Your task to perform on an android device: Add "razer kraken" to the cart on amazon.com Image 0: 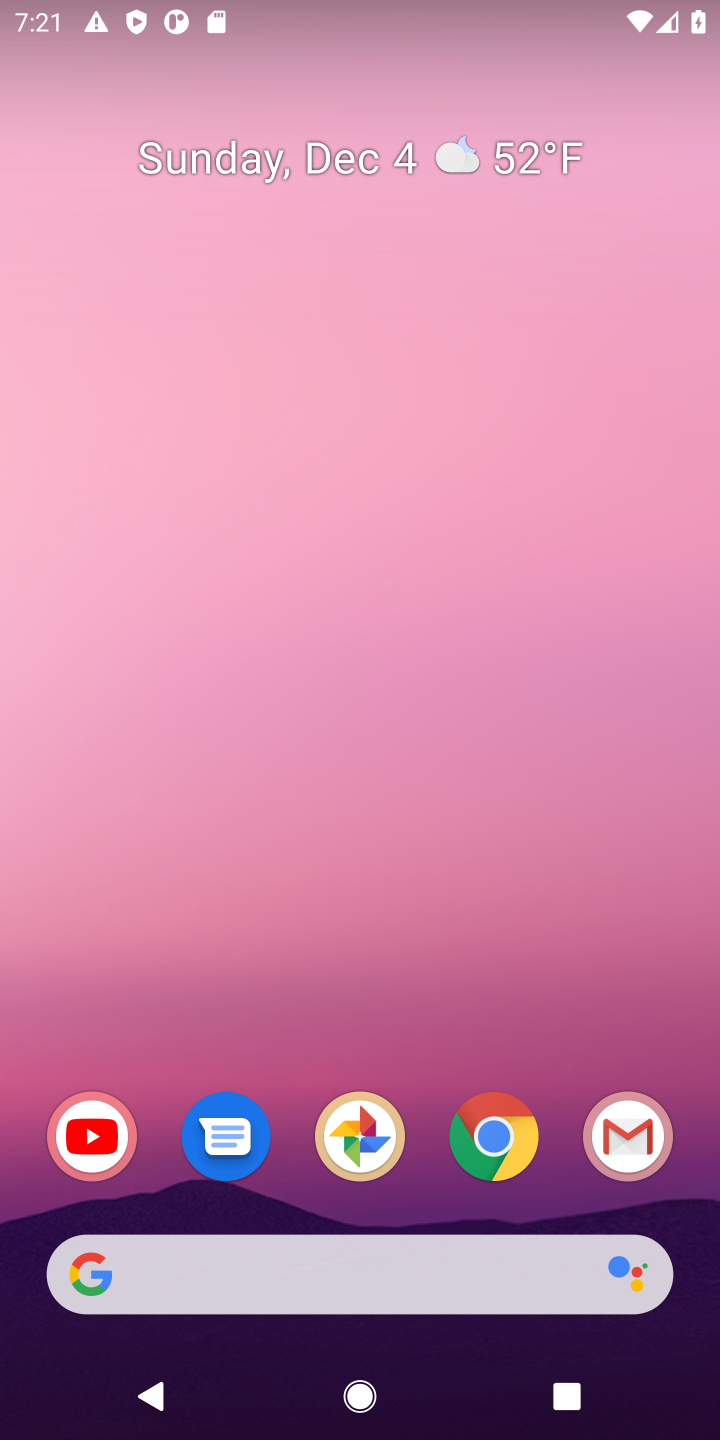
Step 0: click (497, 1148)
Your task to perform on an android device: Add "razer kraken" to the cart on amazon.com Image 1: 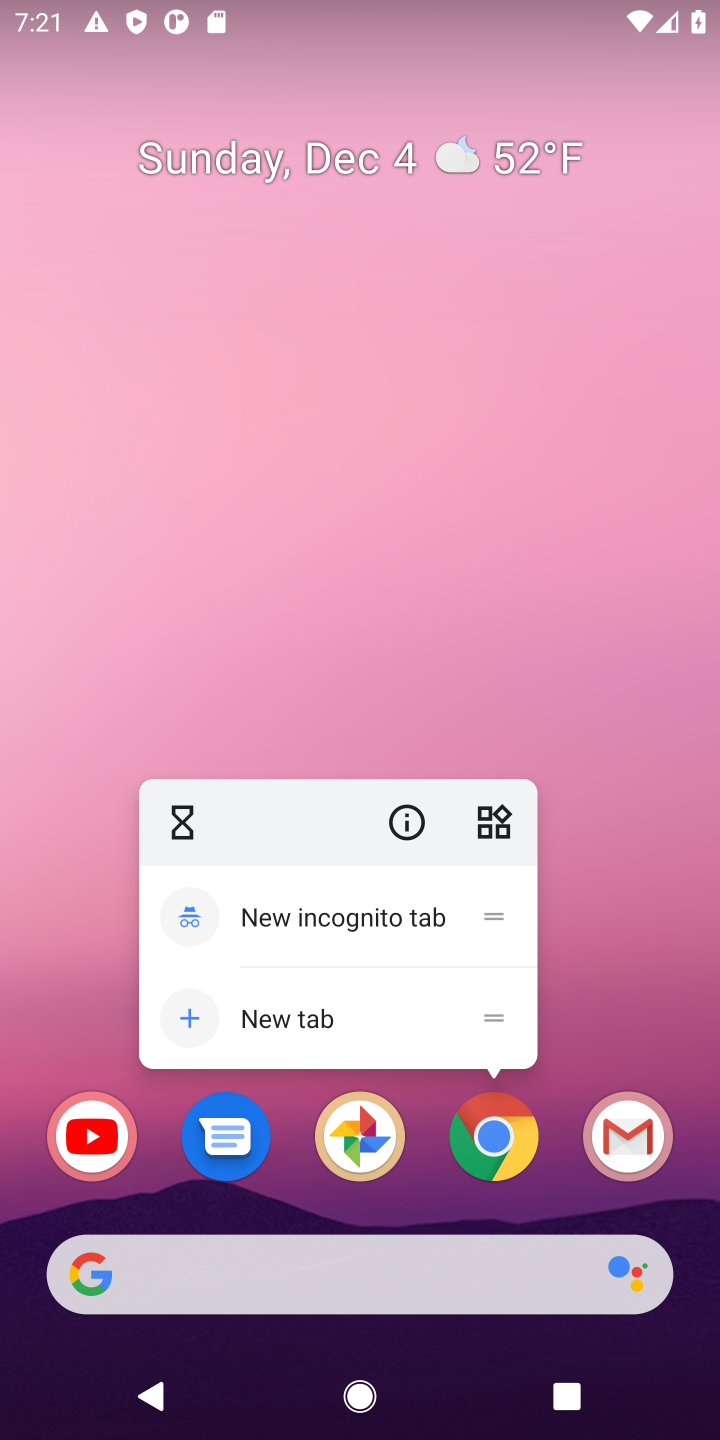
Step 1: click (497, 1148)
Your task to perform on an android device: Add "razer kraken" to the cart on amazon.com Image 2: 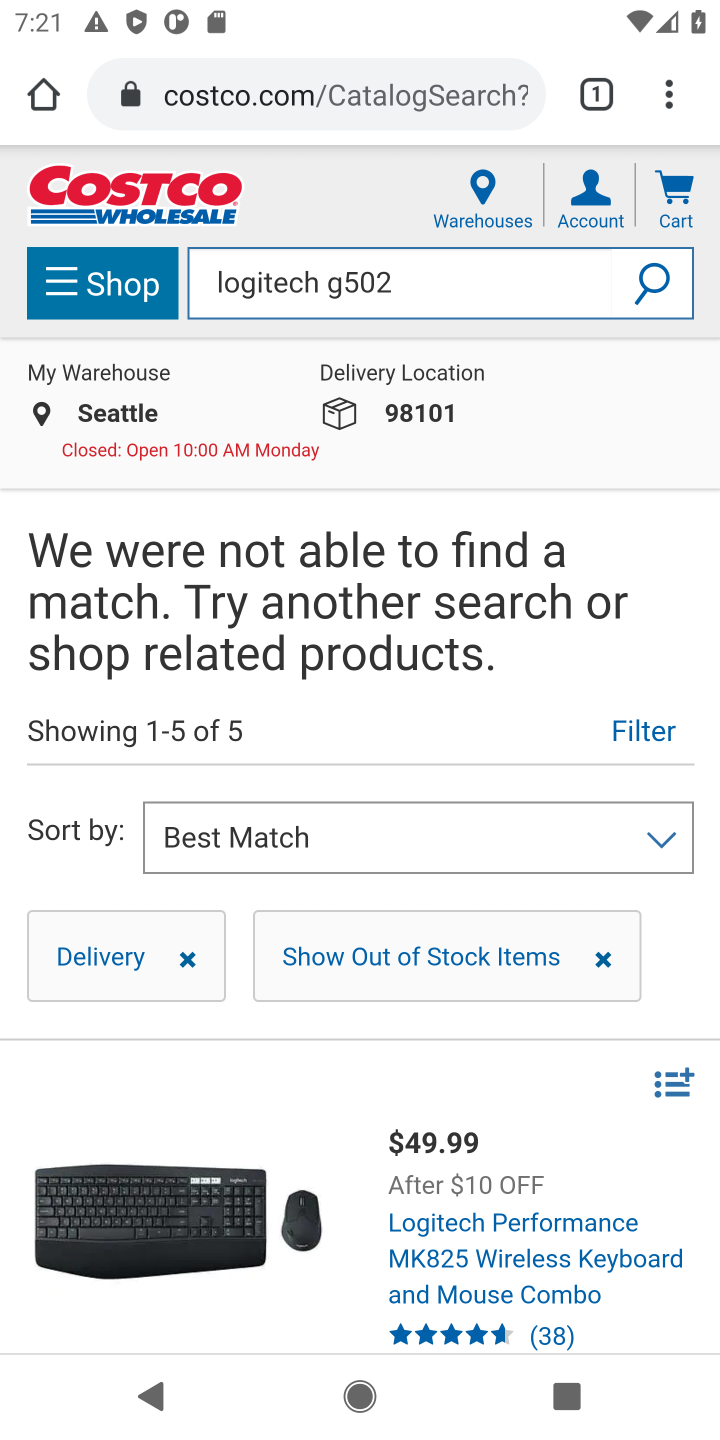
Step 2: click (273, 105)
Your task to perform on an android device: Add "razer kraken" to the cart on amazon.com Image 3: 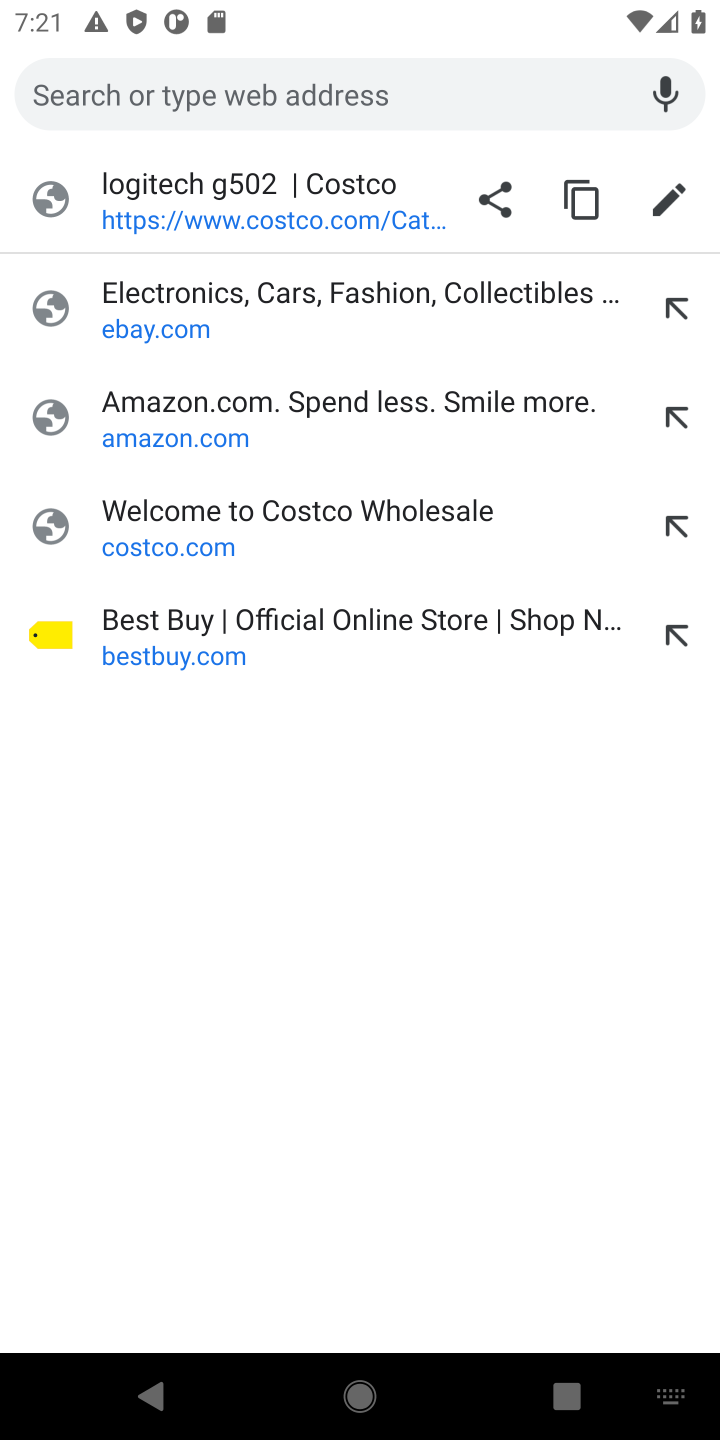
Step 3: click (138, 411)
Your task to perform on an android device: Add "razer kraken" to the cart on amazon.com Image 4: 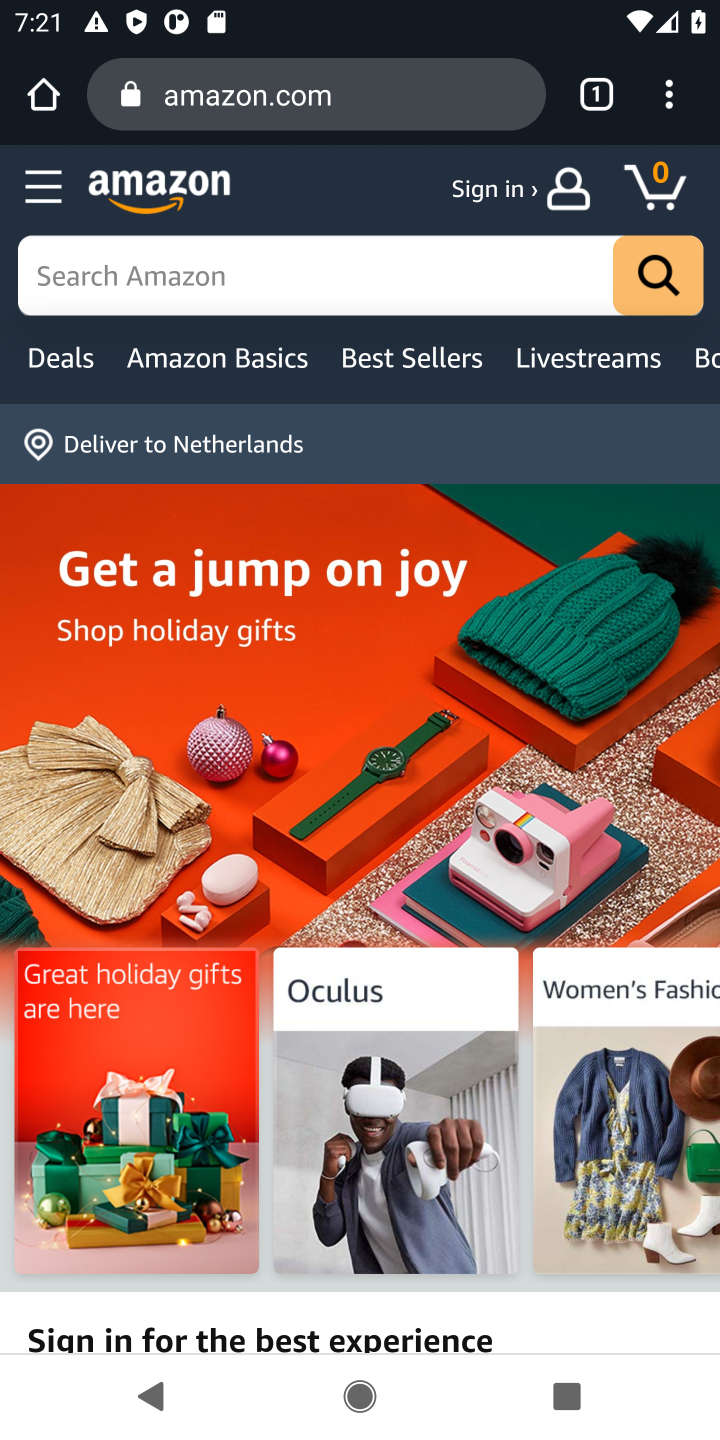
Step 4: click (129, 285)
Your task to perform on an android device: Add "razer kraken" to the cart on amazon.com Image 5: 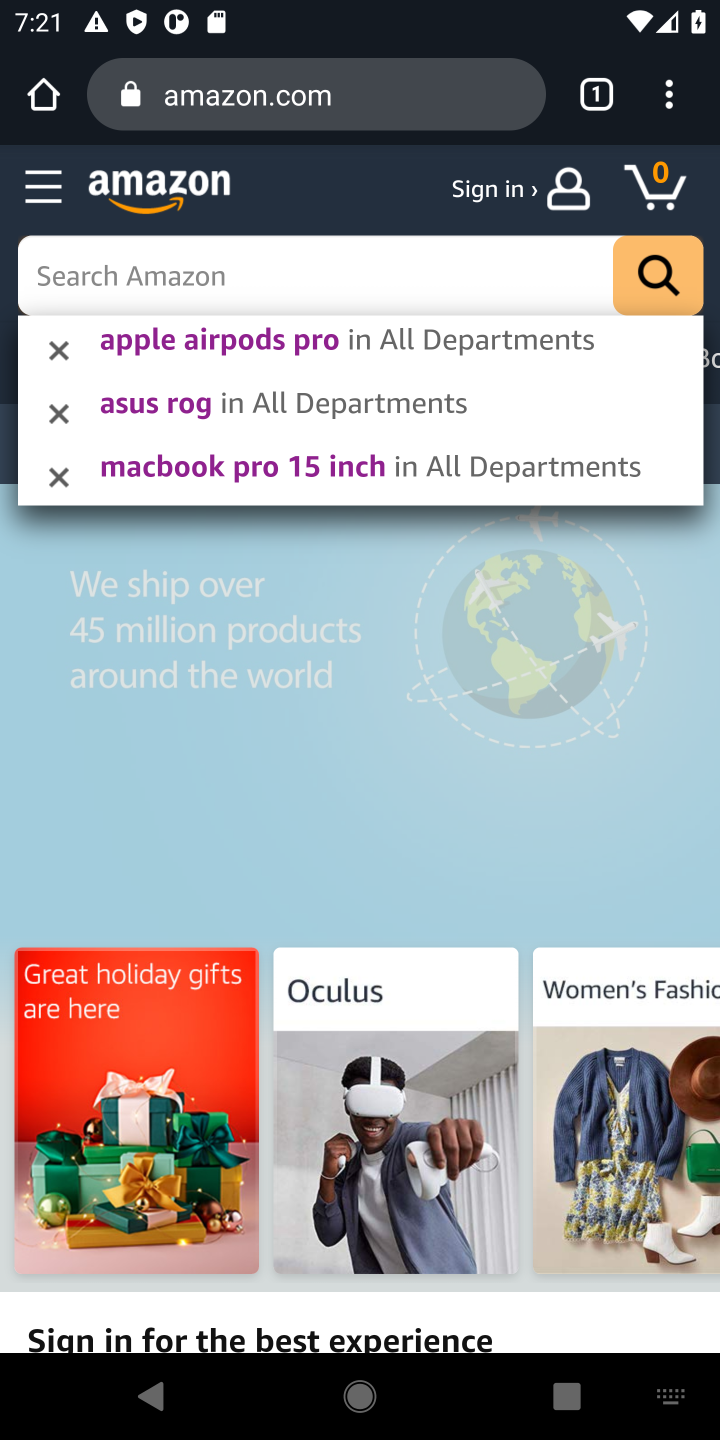
Step 5: type "razer kraken"
Your task to perform on an android device: Add "razer kraken" to the cart on amazon.com Image 6: 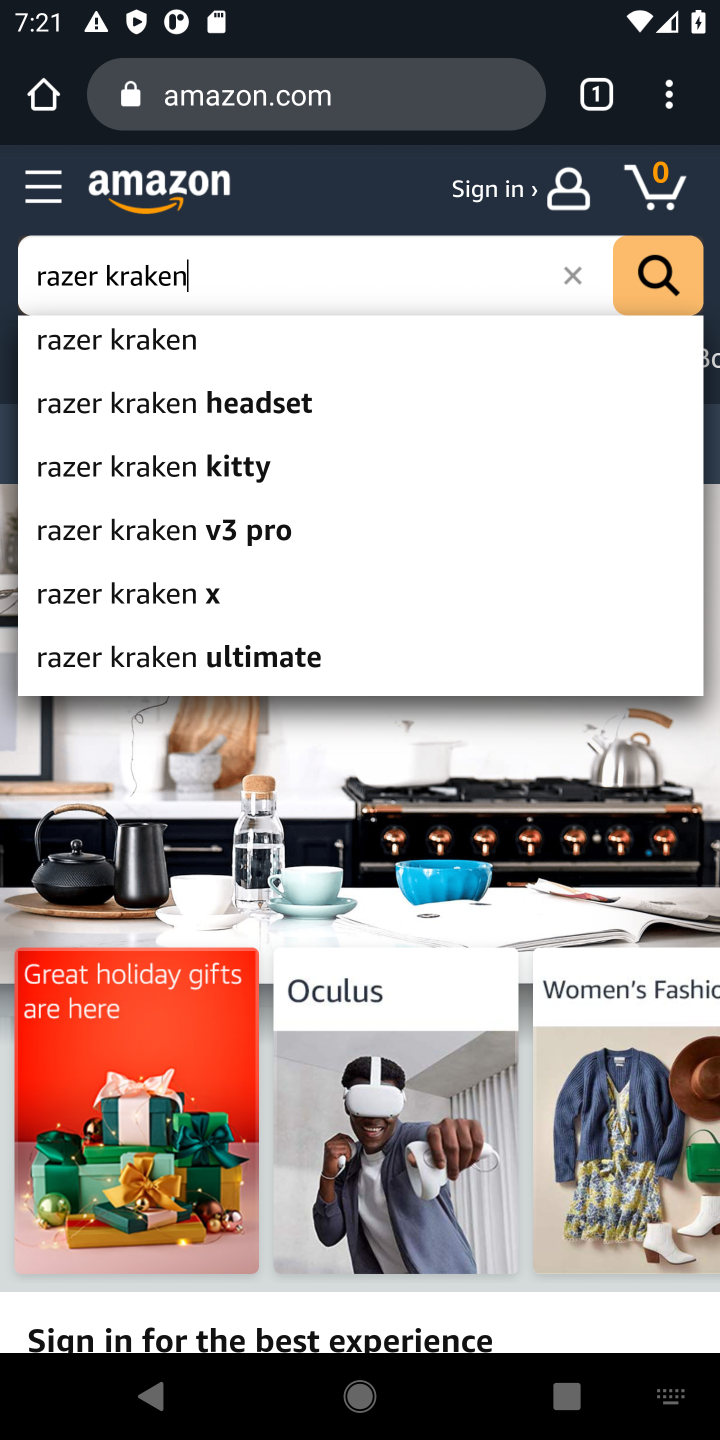
Step 6: click (157, 344)
Your task to perform on an android device: Add "razer kraken" to the cart on amazon.com Image 7: 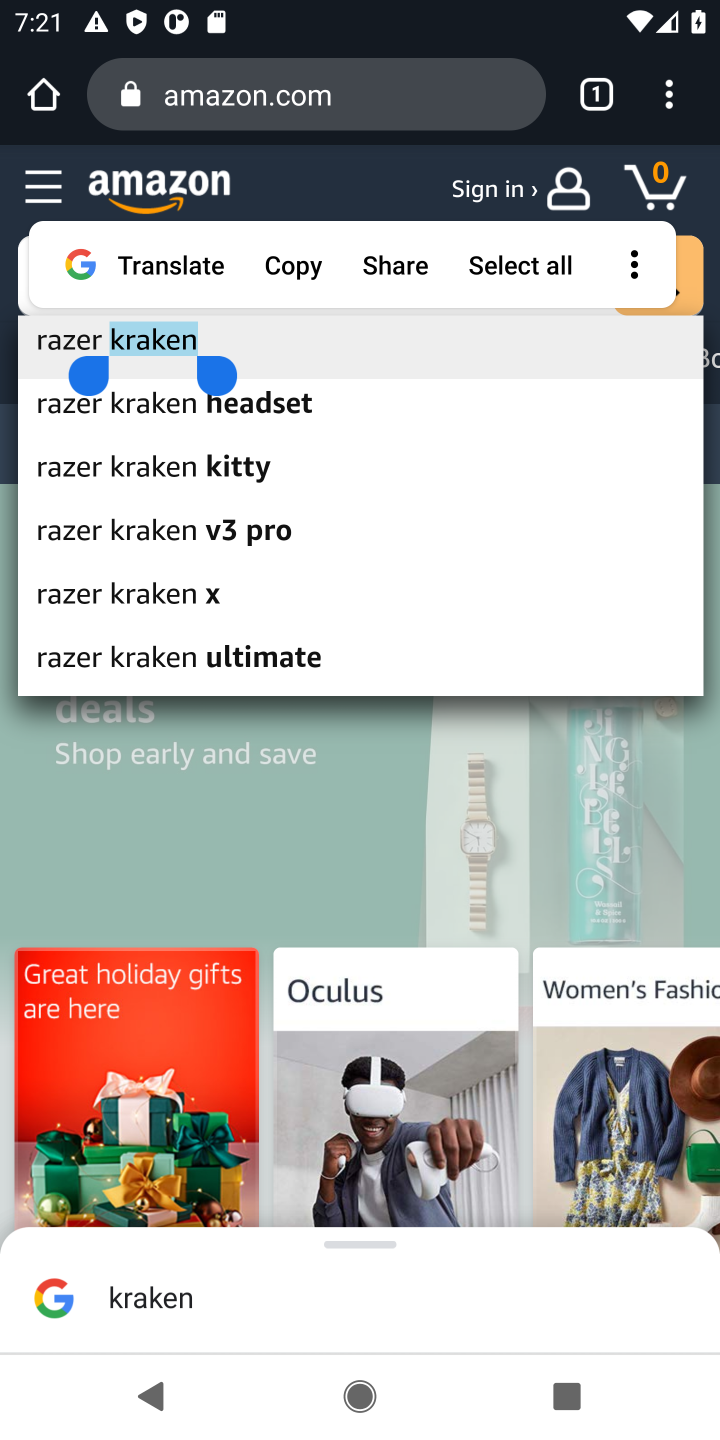
Step 7: click (73, 331)
Your task to perform on an android device: Add "razer kraken" to the cart on amazon.com Image 8: 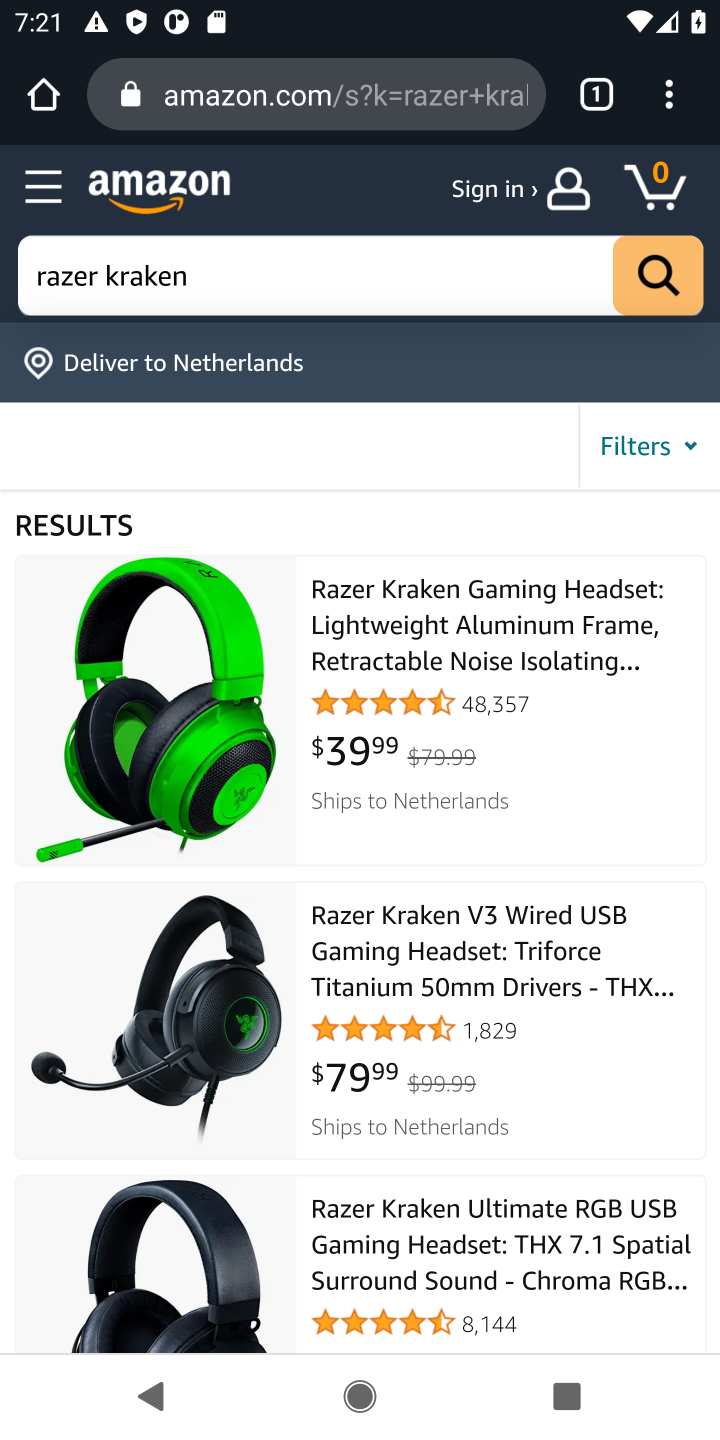
Step 8: click (463, 651)
Your task to perform on an android device: Add "razer kraken" to the cart on amazon.com Image 9: 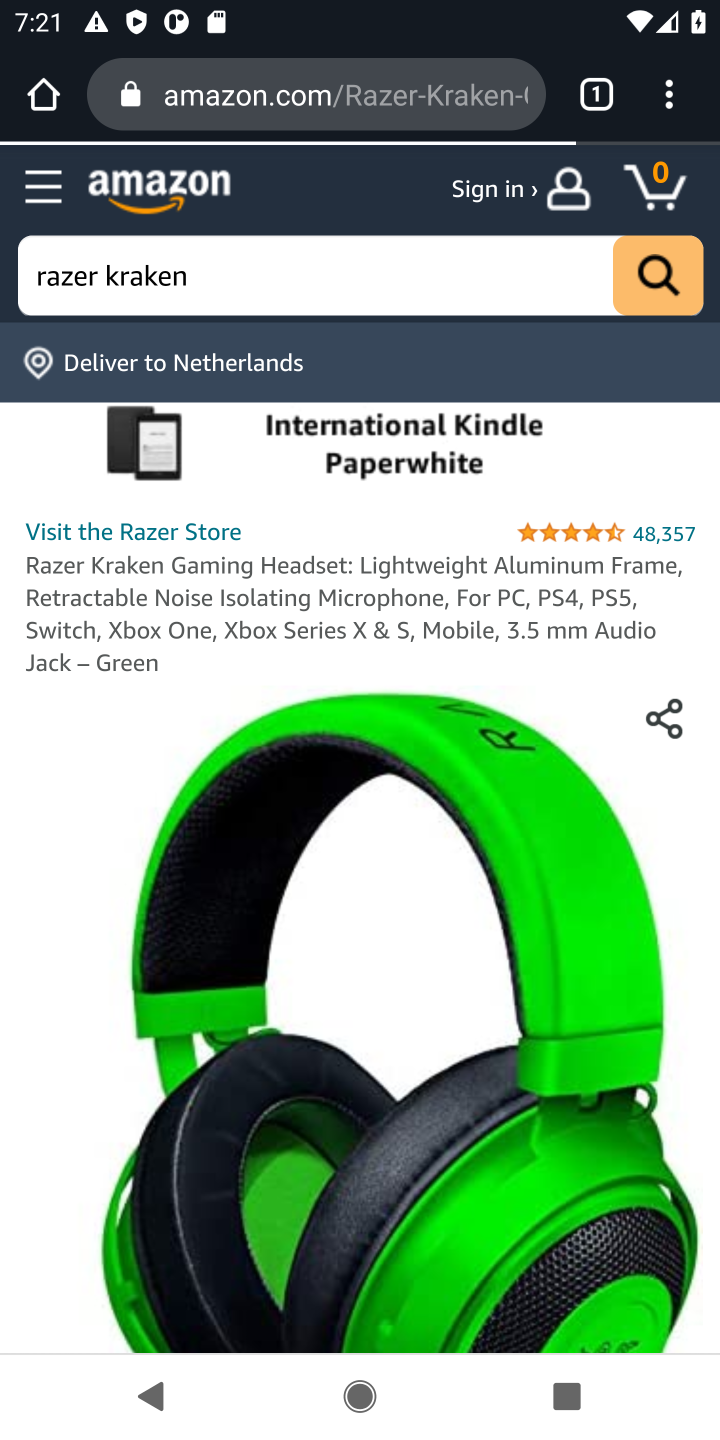
Step 9: drag from (434, 1025) to (413, 521)
Your task to perform on an android device: Add "razer kraken" to the cart on amazon.com Image 10: 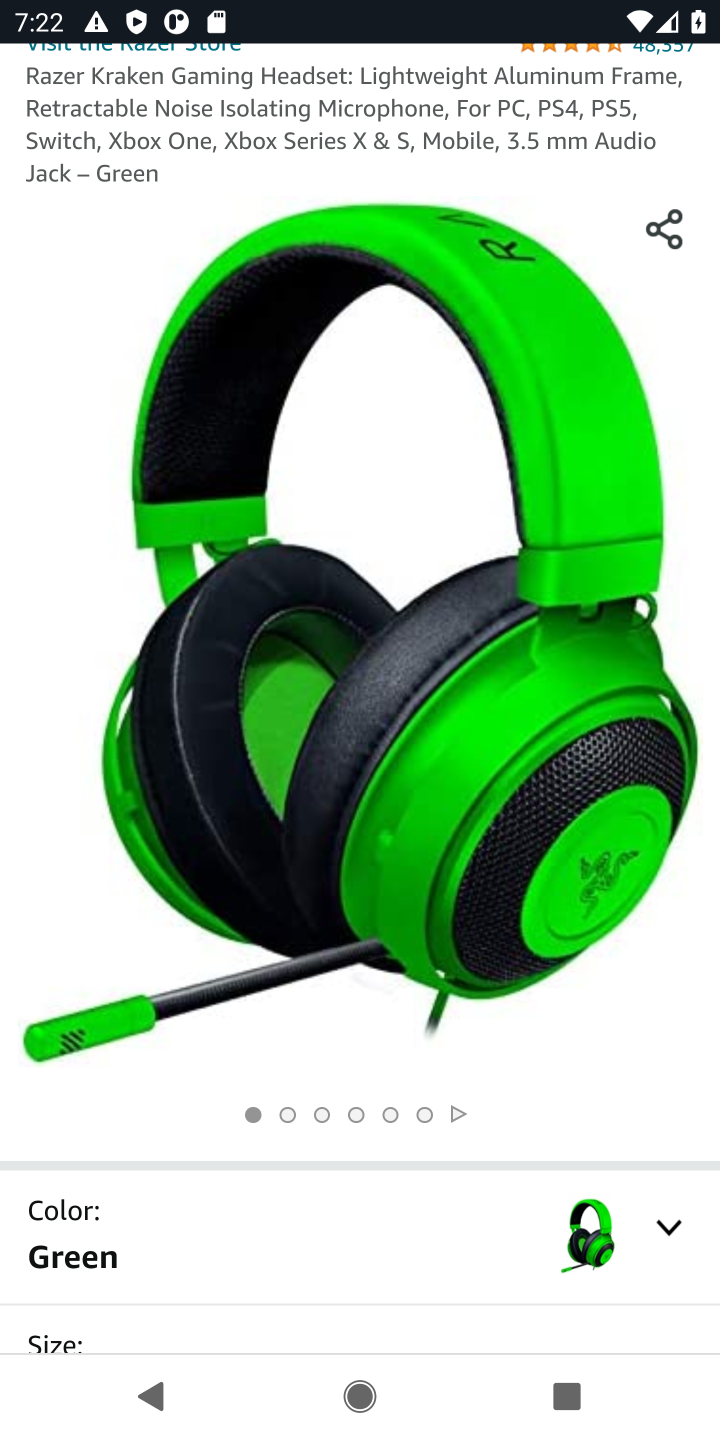
Step 10: drag from (517, 854) to (511, 452)
Your task to perform on an android device: Add "razer kraken" to the cart on amazon.com Image 11: 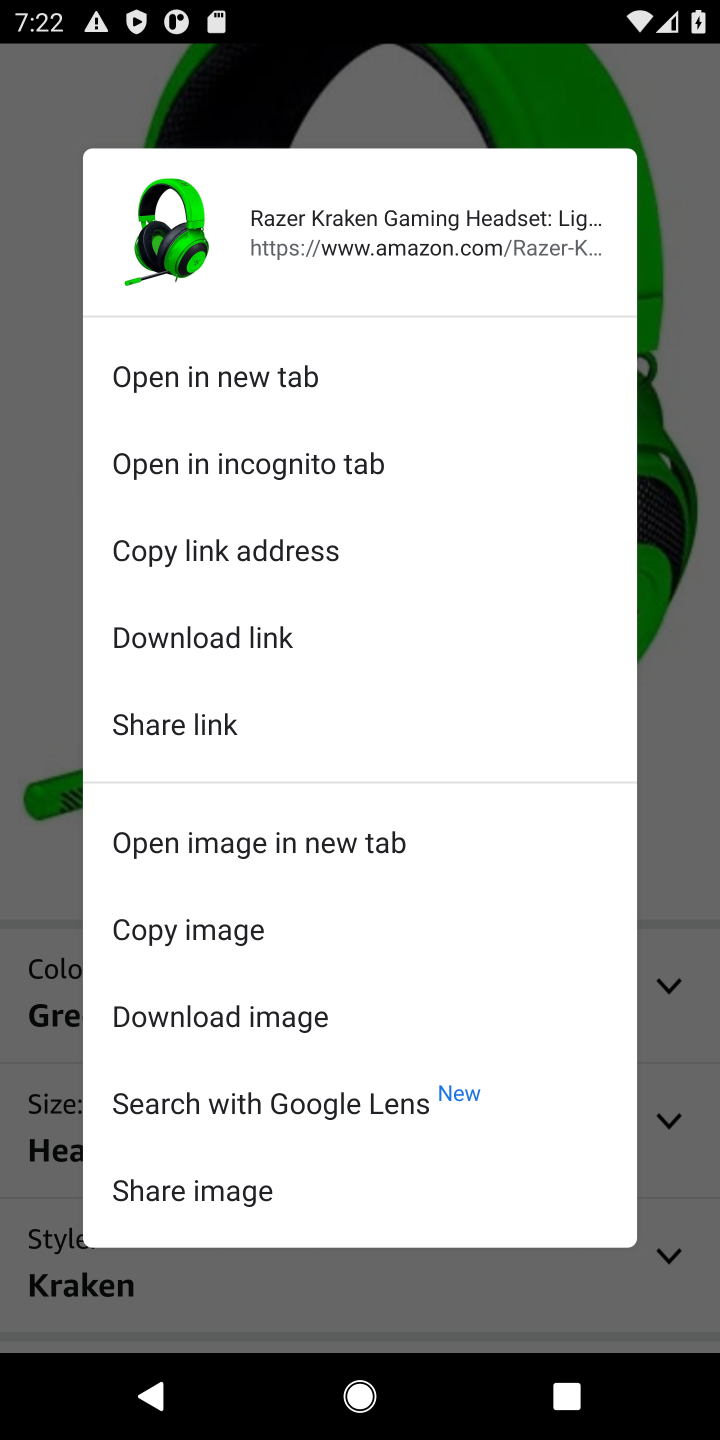
Step 11: click (701, 754)
Your task to perform on an android device: Add "razer kraken" to the cart on amazon.com Image 12: 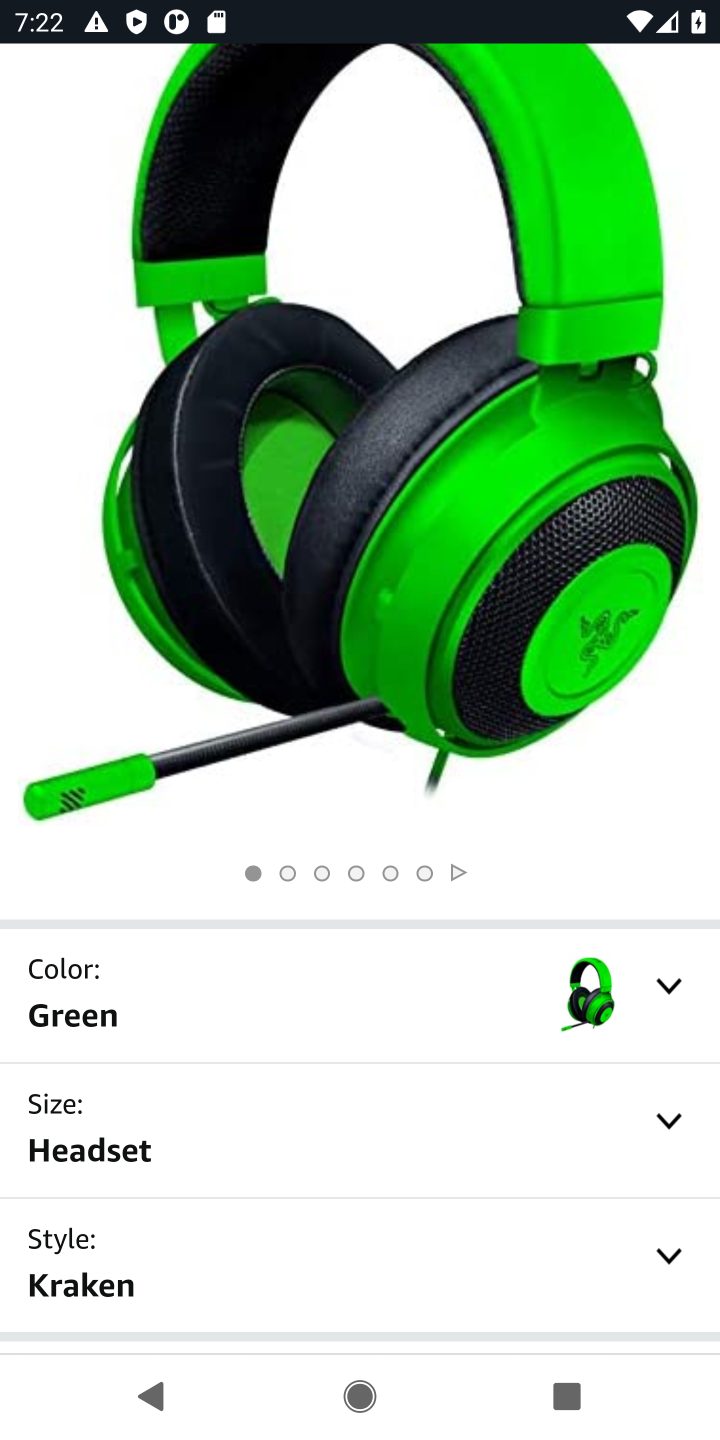
Step 12: drag from (466, 957) to (441, 490)
Your task to perform on an android device: Add "razer kraken" to the cart on amazon.com Image 13: 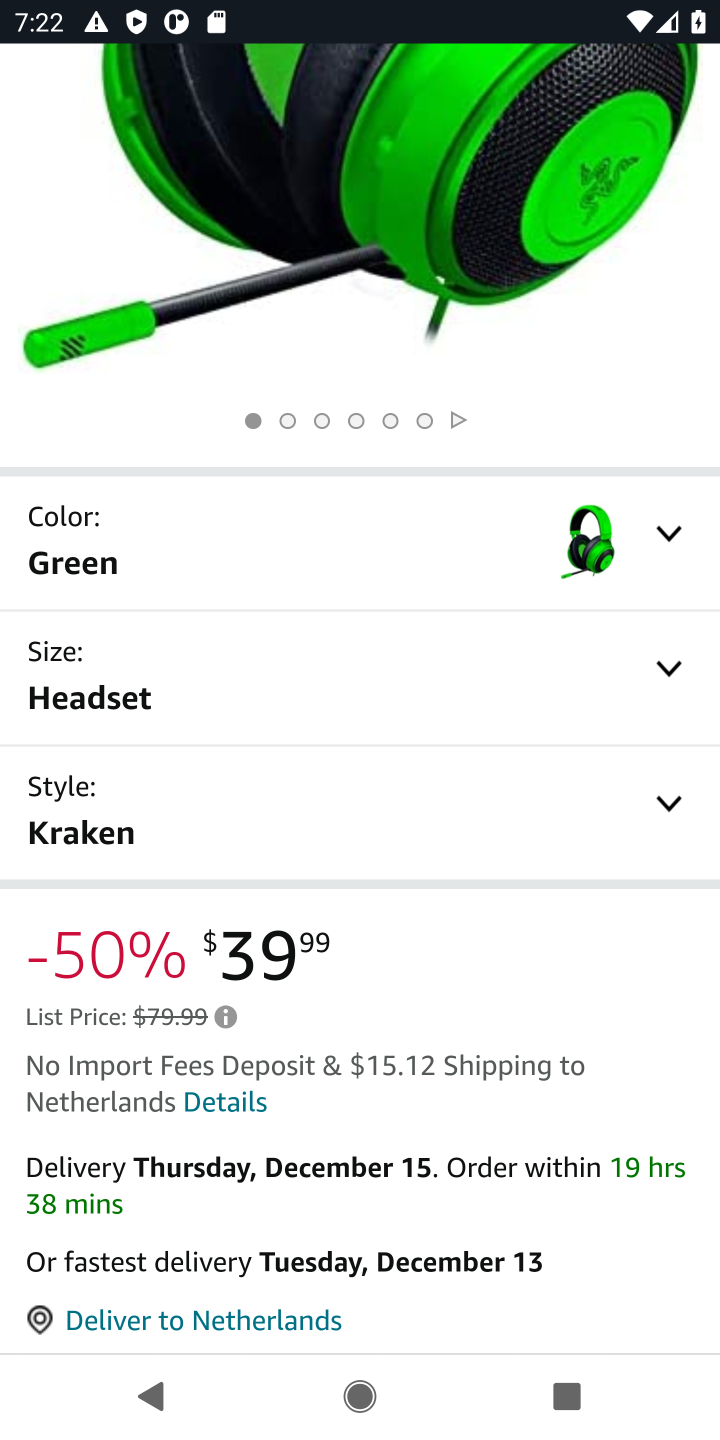
Step 13: drag from (324, 1043) to (324, 515)
Your task to perform on an android device: Add "razer kraken" to the cart on amazon.com Image 14: 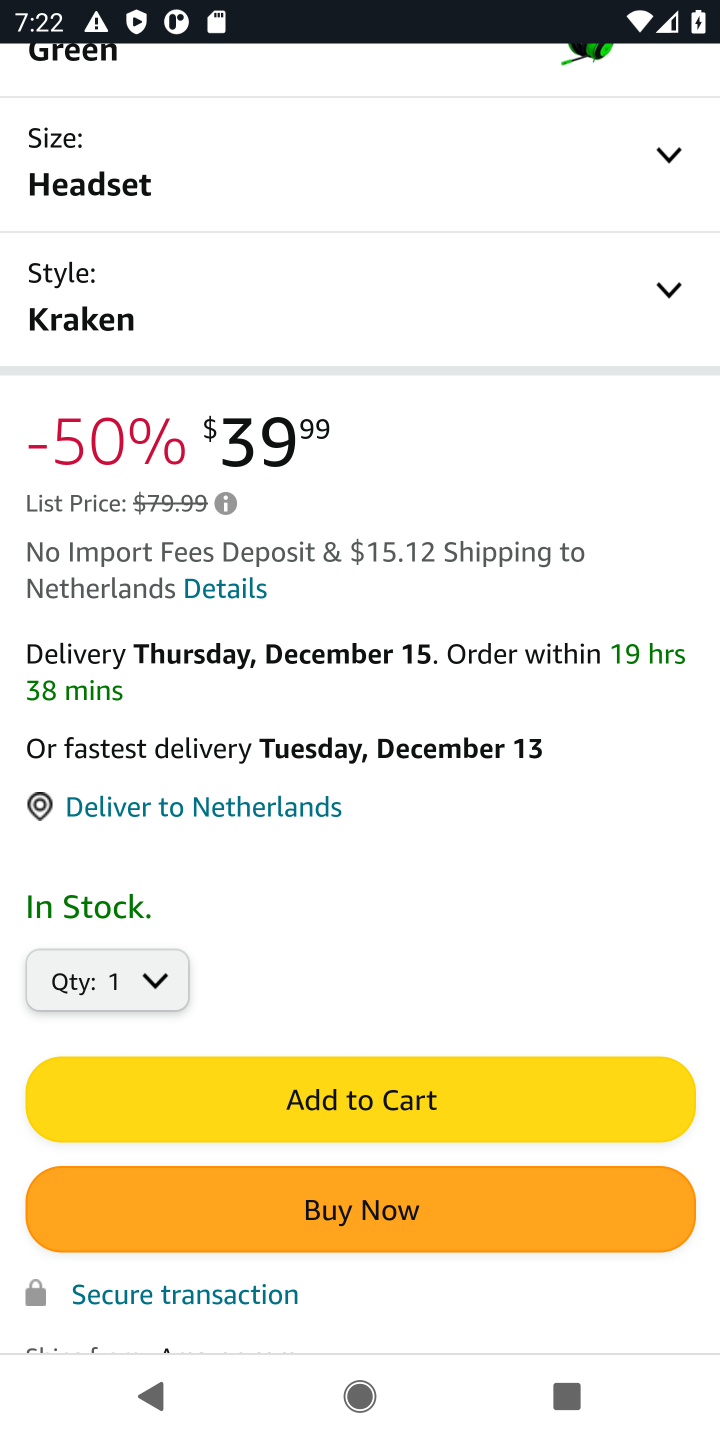
Step 14: click (307, 1089)
Your task to perform on an android device: Add "razer kraken" to the cart on amazon.com Image 15: 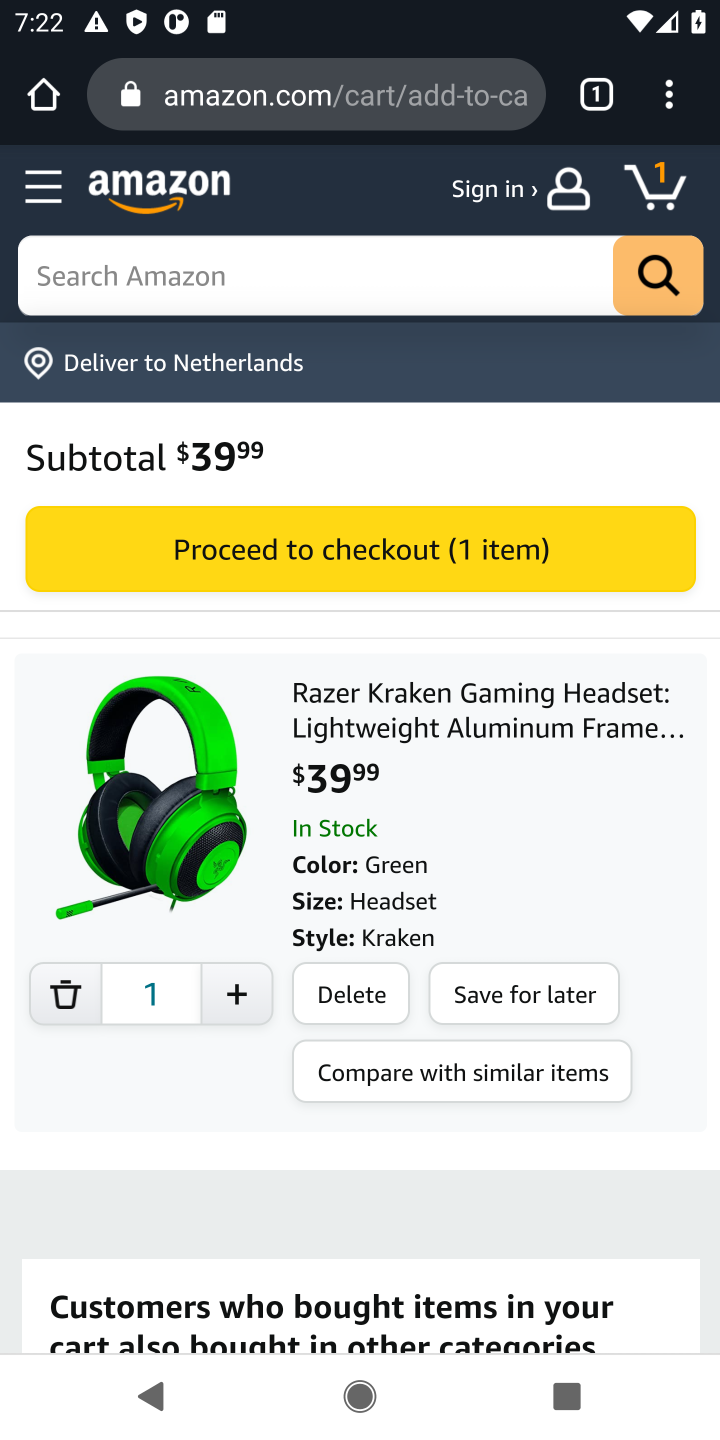
Step 15: task complete